Your task to perform on an android device: Go to Yahoo.com Image 0: 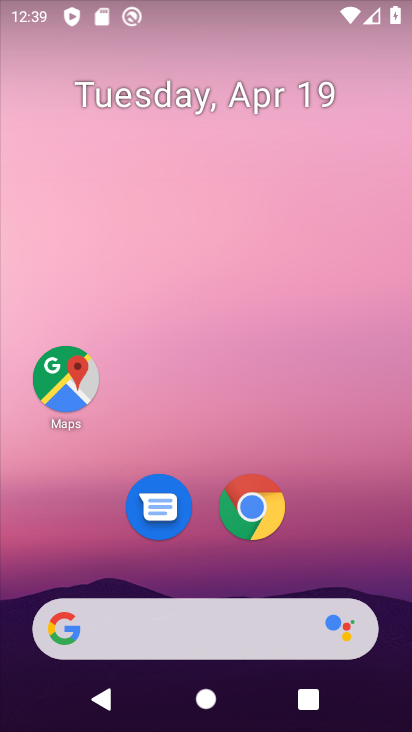
Step 0: press home button
Your task to perform on an android device: Go to Yahoo.com Image 1: 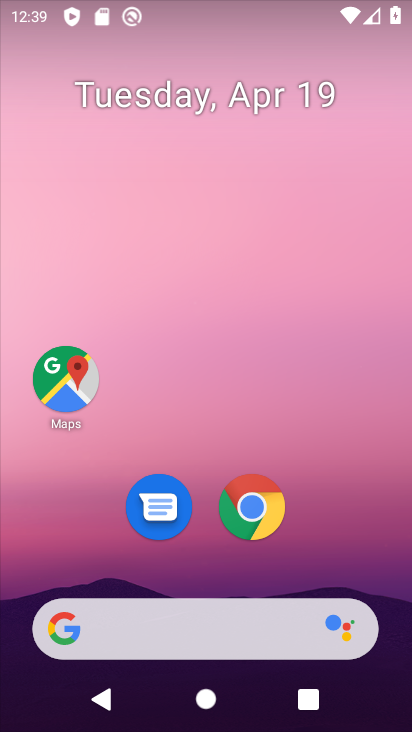
Step 1: drag from (201, 555) to (199, 78)
Your task to perform on an android device: Go to Yahoo.com Image 2: 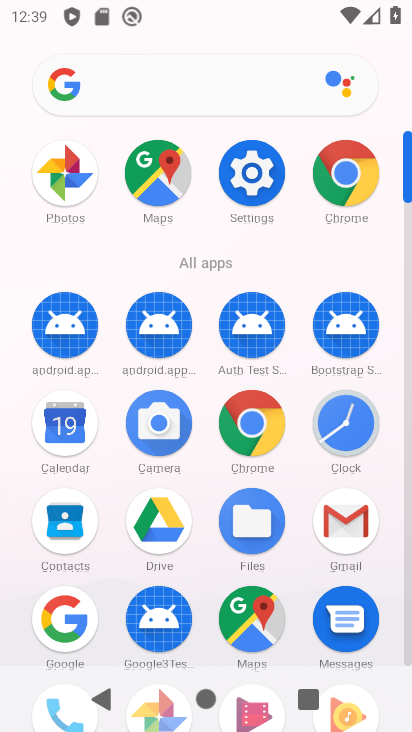
Step 2: click (345, 170)
Your task to perform on an android device: Go to Yahoo.com Image 3: 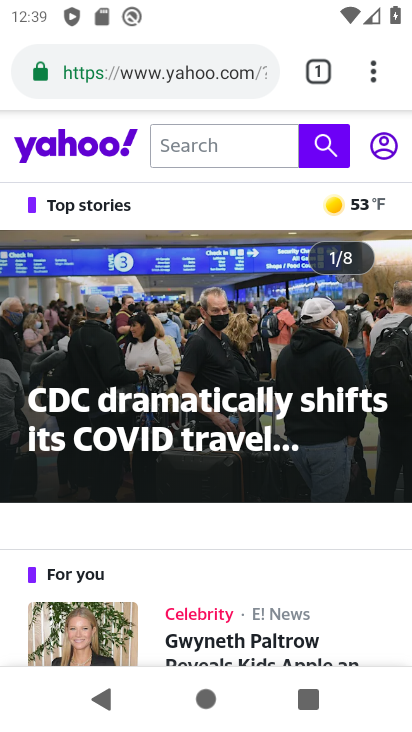
Step 3: task complete